Your task to perform on an android device: toggle sleep mode Image 0: 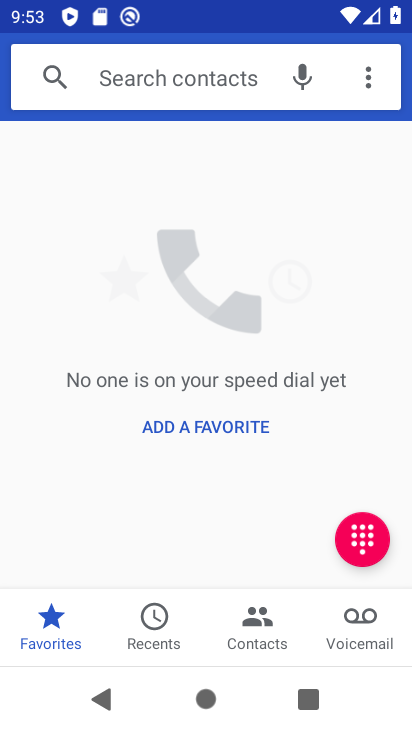
Step 0: press home button
Your task to perform on an android device: toggle sleep mode Image 1: 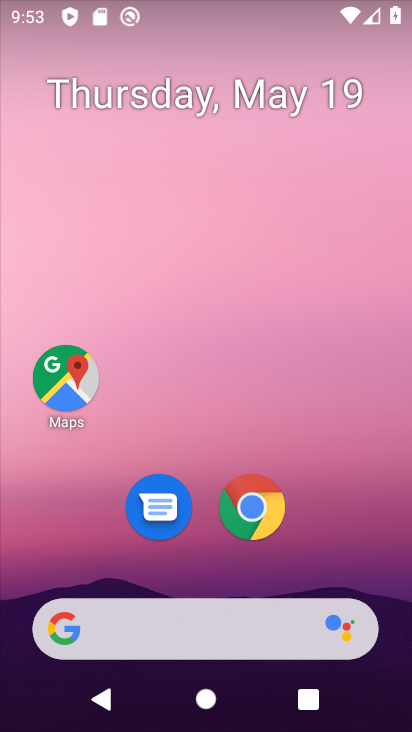
Step 1: drag from (393, 653) to (387, 67)
Your task to perform on an android device: toggle sleep mode Image 2: 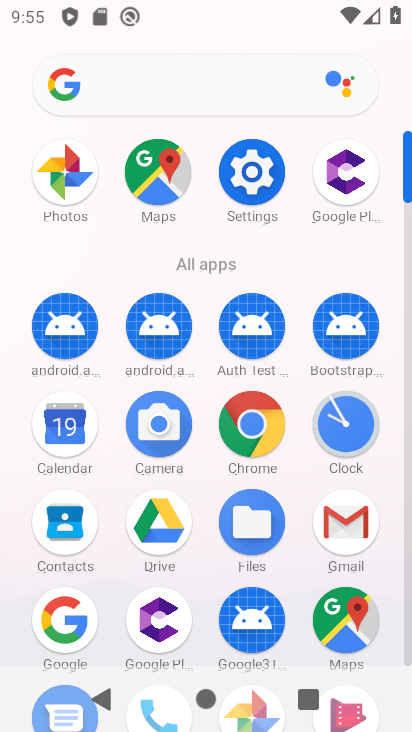
Step 2: click (252, 173)
Your task to perform on an android device: toggle sleep mode Image 3: 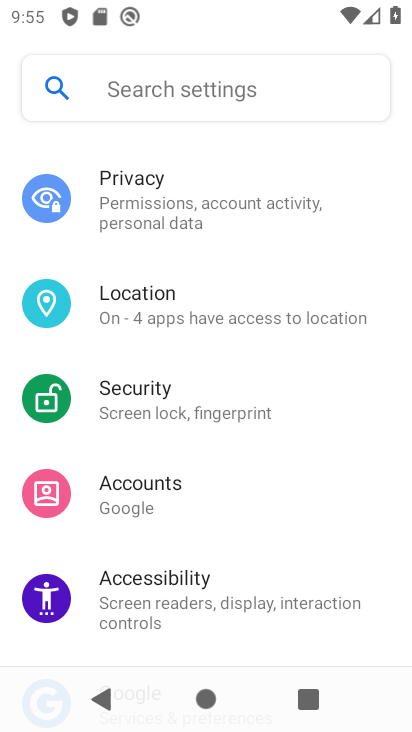
Step 3: drag from (334, 175) to (330, 613)
Your task to perform on an android device: toggle sleep mode Image 4: 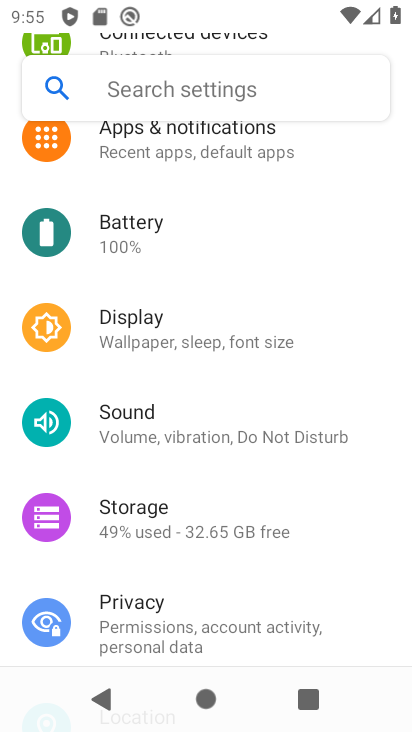
Step 4: click (116, 329)
Your task to perform on an android device: toggle sleep mode Image 5: 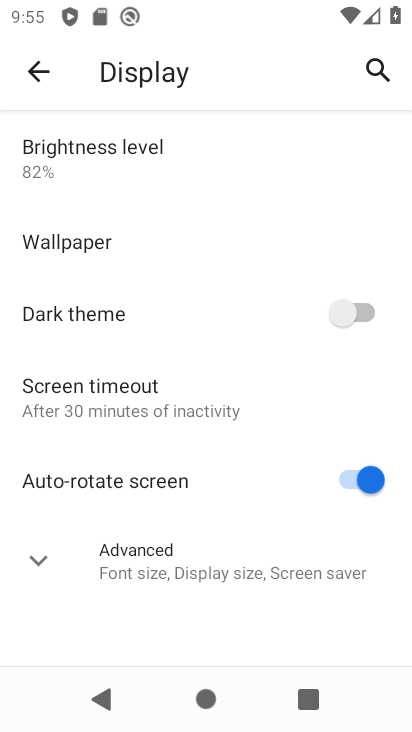
Step 5: click (119, 396)
Your task to perform on an android device: toggle sleep mode Image 6: 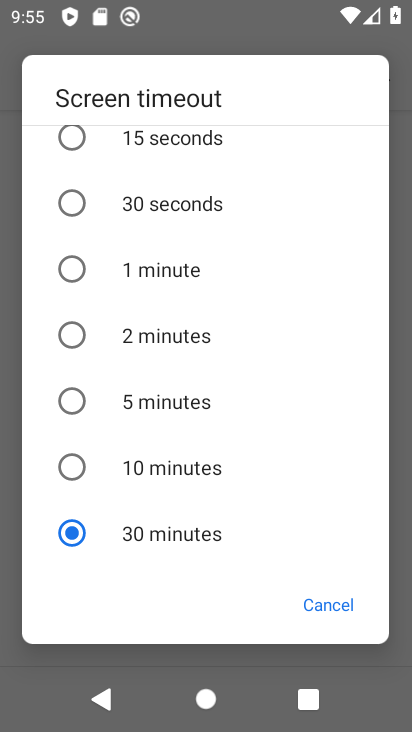
Step 6: click (70, 468)
Your task to perform on an android device: toggle sleep mode Image 7: 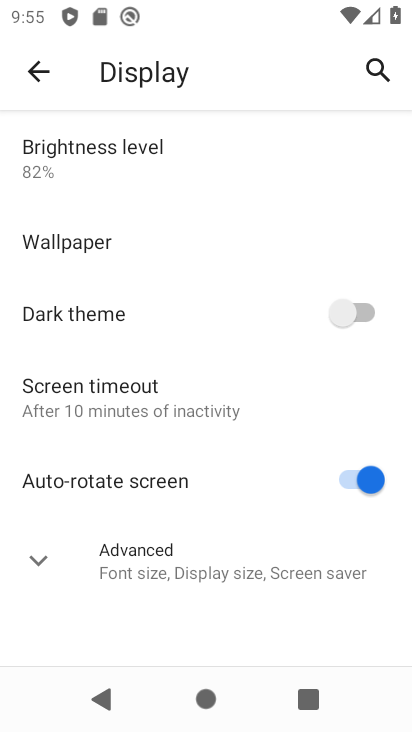
Step 7: task complete